Your task to perform on an android device: Open maps Image 0: 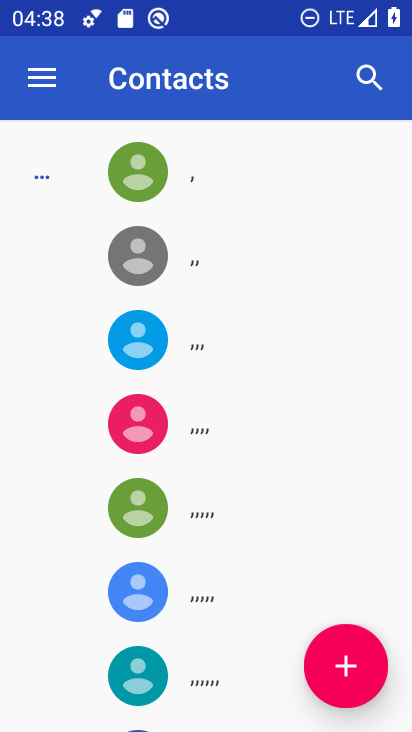
Step 0: press home button
Your task to perform on an android device: Open maps Image 1: 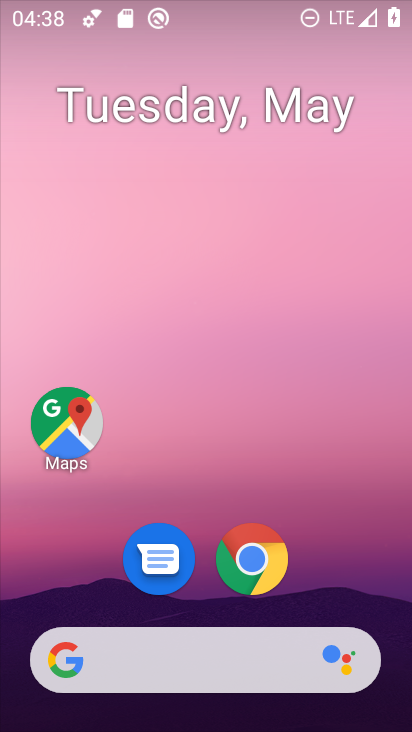
Step 1: drag from (226, 724) to (221, 216)
Your task to perform on an android device: Open maps Image 2: 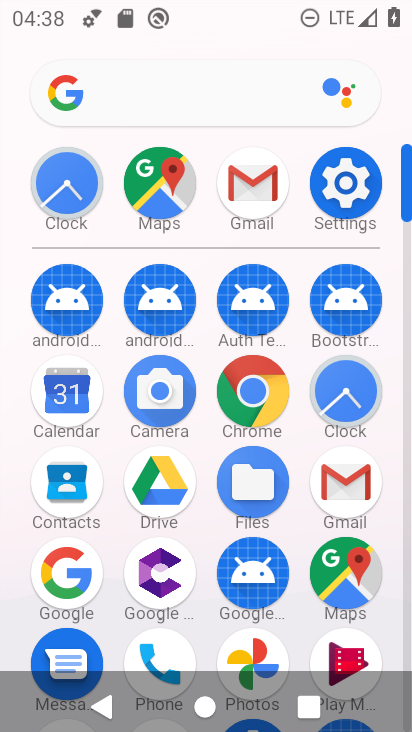
Step 2: click (351, 577)
Your task to perform on an android device: Open maps Image 3: 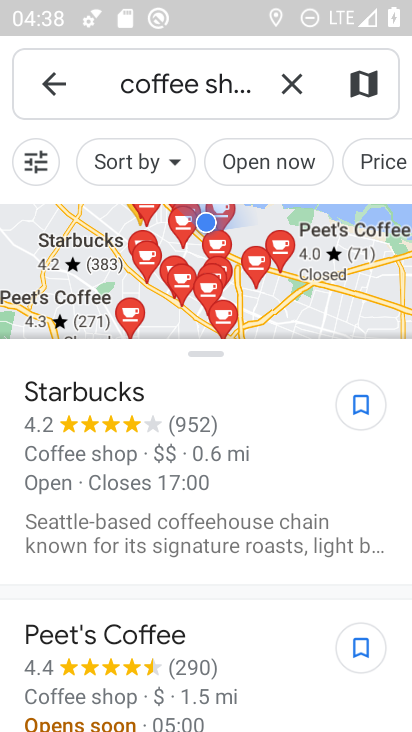
Step 3: task complete